Your task to perform on an android device: When is my next meeting? Image 0: 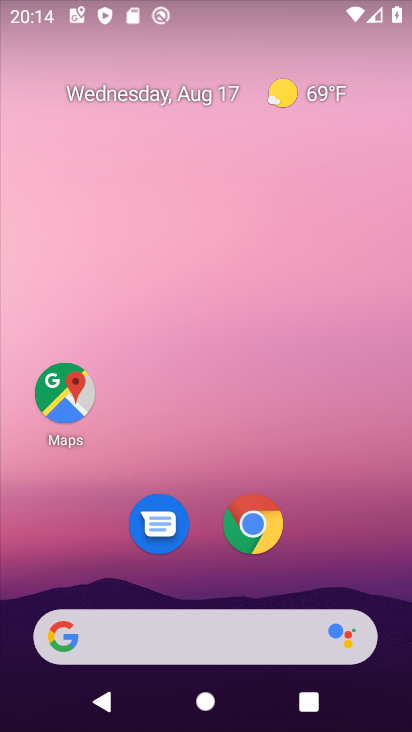
Step 0: drag from (335, 512) to (348, 0)
Your task to perform on an android device: When is my next meeting? Image 1: 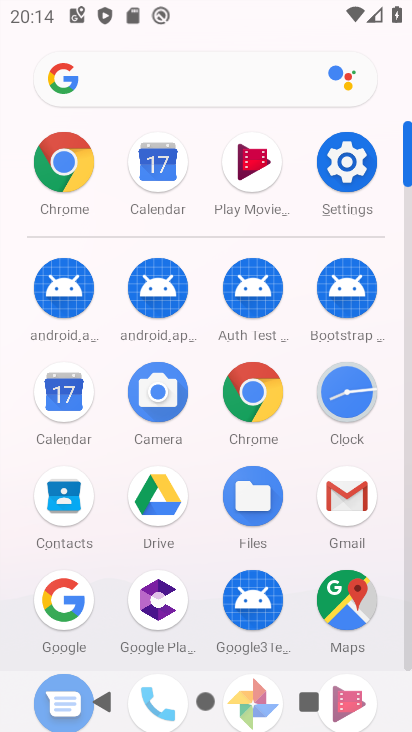
Step 1: click (161, 166)
Your task to perform on an android device: When is my next meeting? Image 2: 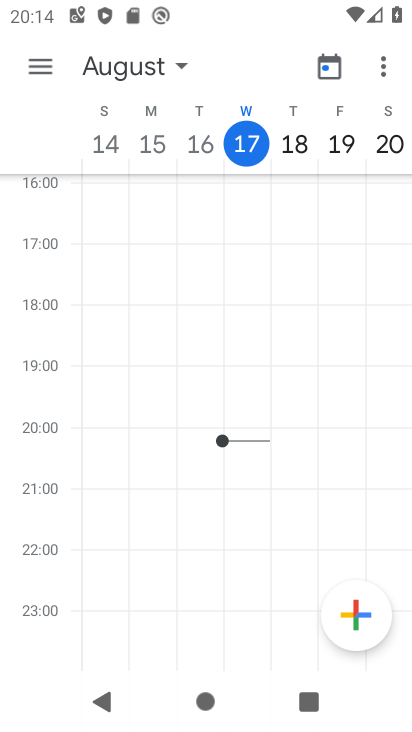
Step 2: click (243, 142)
Your task to perform on an android device: When is my next meeting? Image 3: 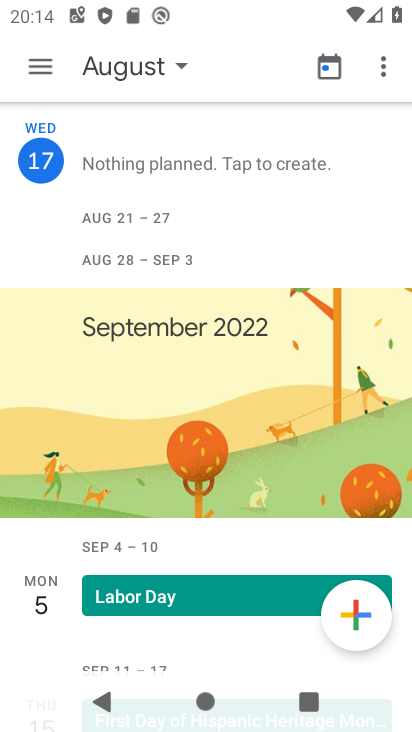
Step 3: task complete